Your task to perform on an android device: Open CNN.com Image 0: 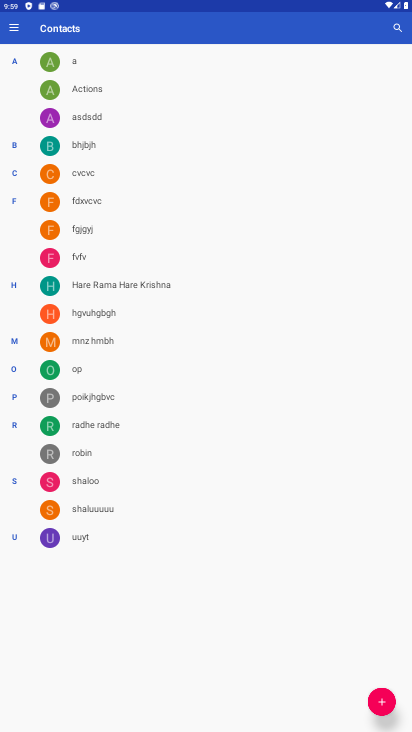
Step 0: press home button
Your task to perform on an android device: Open CNN.com Image 1: 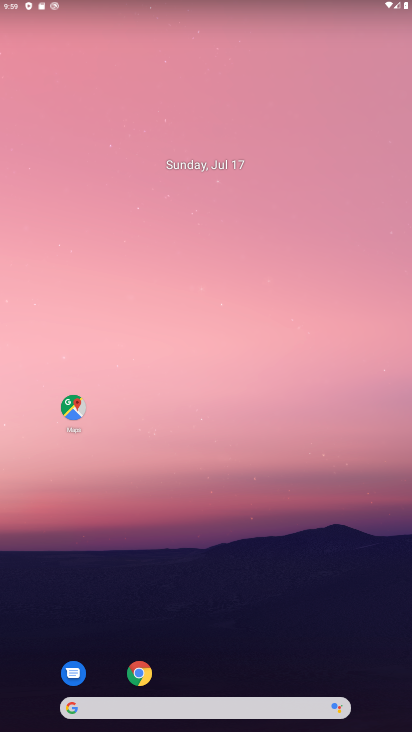
Step 1: drag from (255, 639) to (267, 160)
Your task to perform on an android device: Open CNN.com Image 2: 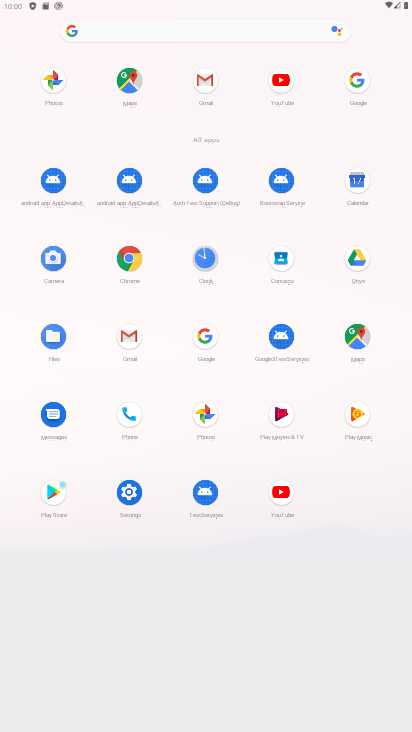
Step 2: click (134, 270)
Your task to perform on an android device: Open CNN.com Image 3: 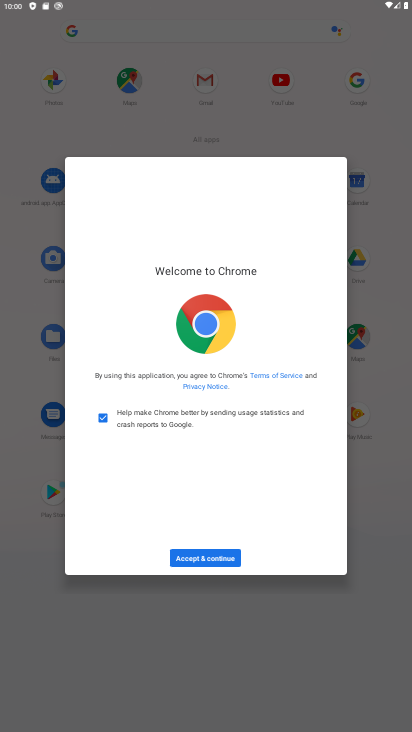
Step 3: click (211, 563)
Your task to perform on an android device: Open CNN.com Image 4: 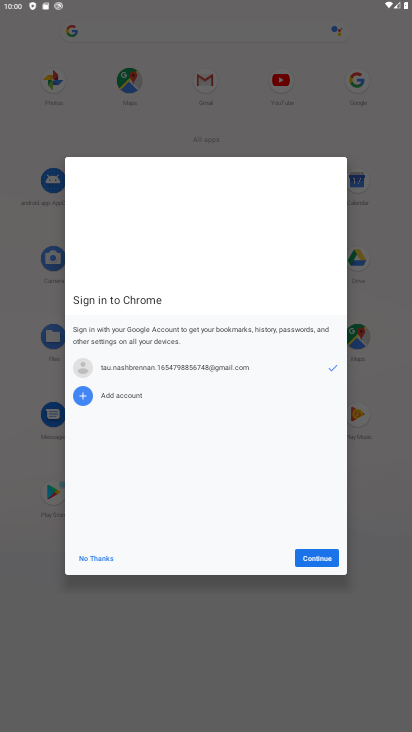
Step 4: click (327, 550)
Your task to perform on an android device: Open CNN.com Image 5: 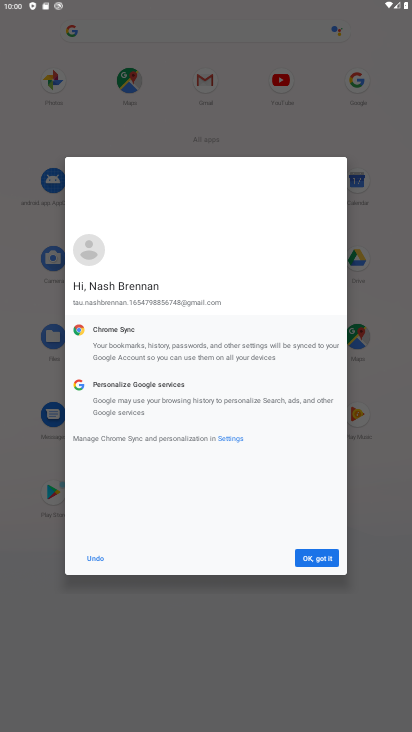
Step 5: click (323, 562)
Your task to perform on an android device: Open CNN.com Image 6: 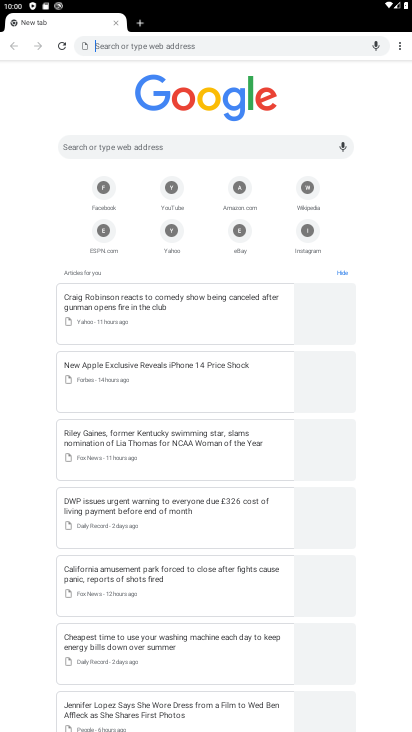
Step 6: click (163, 148)
Your task to perform on an android device: Open CNN.com Image 7: 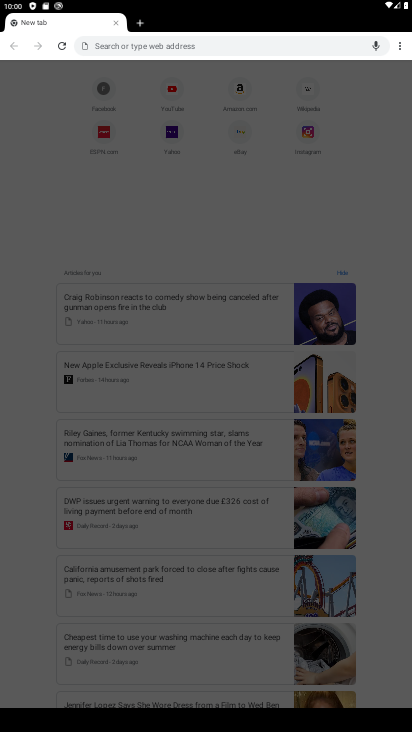
Step 7: type "CNN.com"
Your task to perform on an android device: Open CNN.com Image 8: 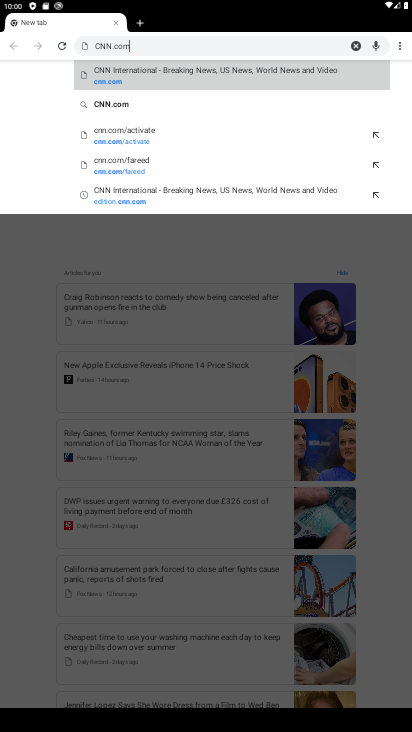
Step 8: click (175, 80)
Your task to perform on an android device: Open CNN.com Image 9: 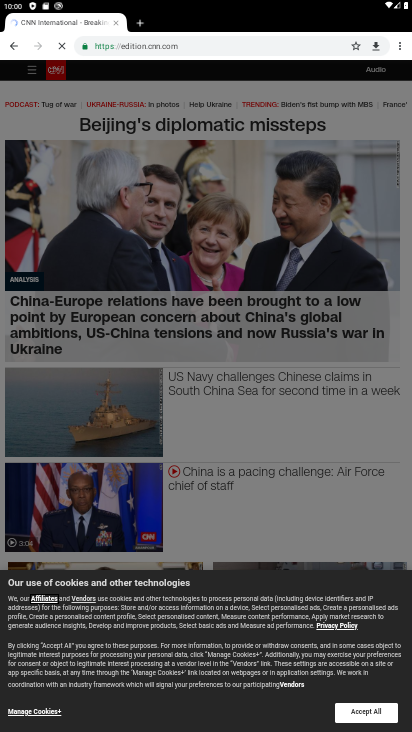
Step 9: task complete